Your task to perform on an android device: Open CNN.com Image 0: 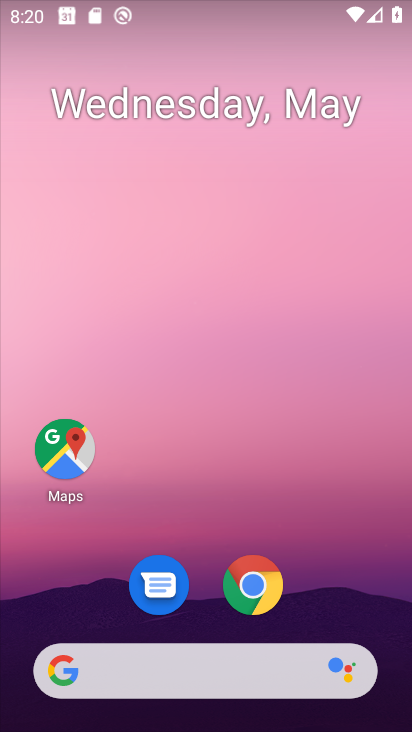
Step 0: click (304, 673)
Your task to perform on an android device: Open CNN.com Image 1: 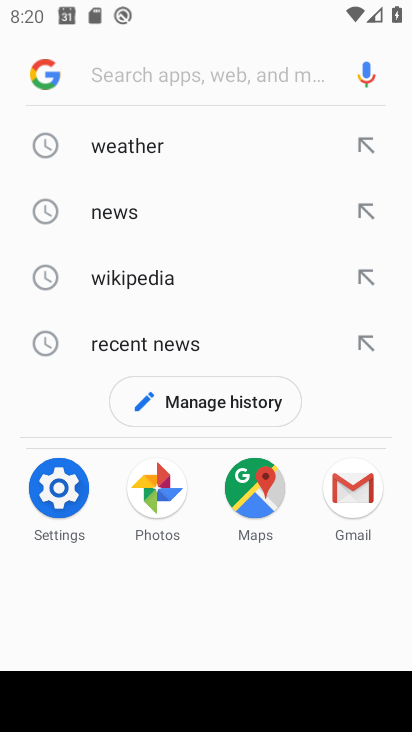
Step 1: type "cnn.com"
Your task to perform on an android device: Open CNN.com Image 2: 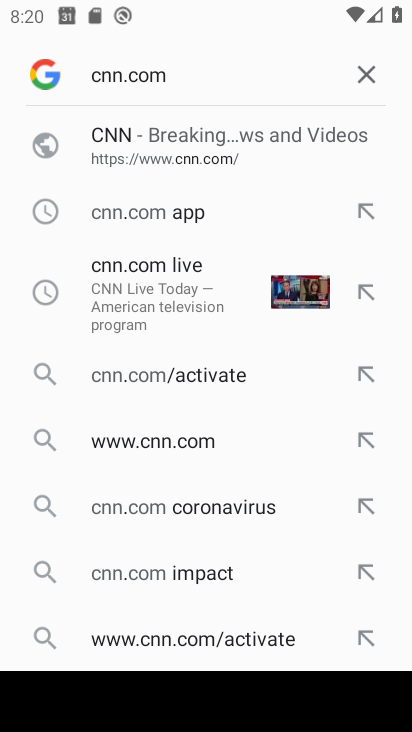
Step 2: click (202, 135)
Your task to perform on an android device: Open CNN.com Image 3: 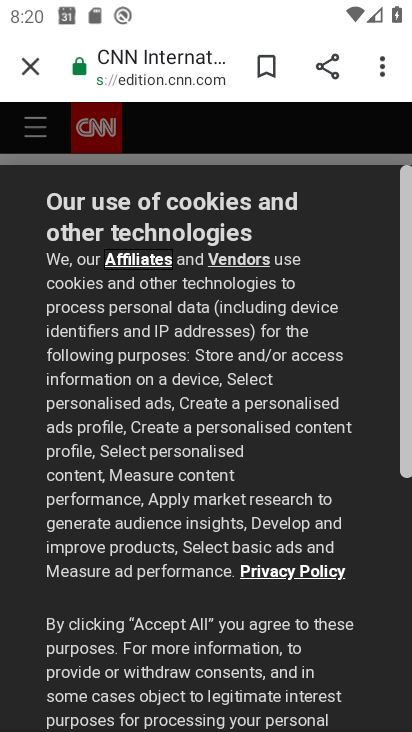
Step 3: task complete